Your task to perform on an android device: Open display settings Image 0: 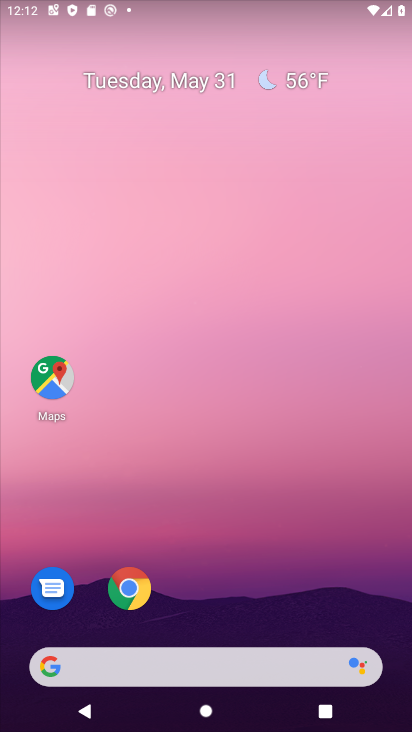
Step 0: drag from (197, 574) to (222, 82)
Your task to perform on an android device: Open display settings Image 1: 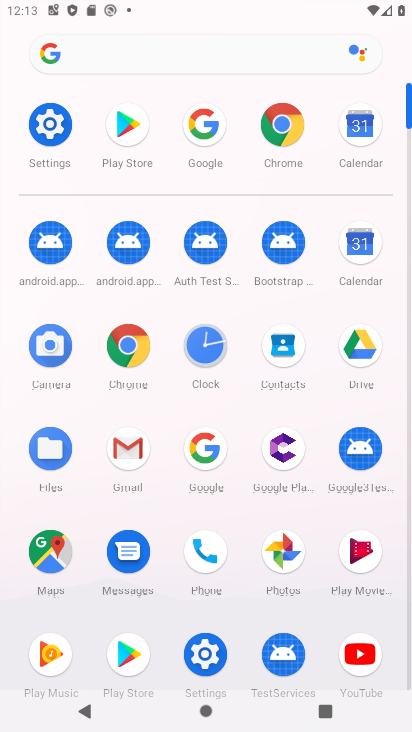
Step 1: click (200, 661)
Your task to perform on an android device: Open display settings Image 2: 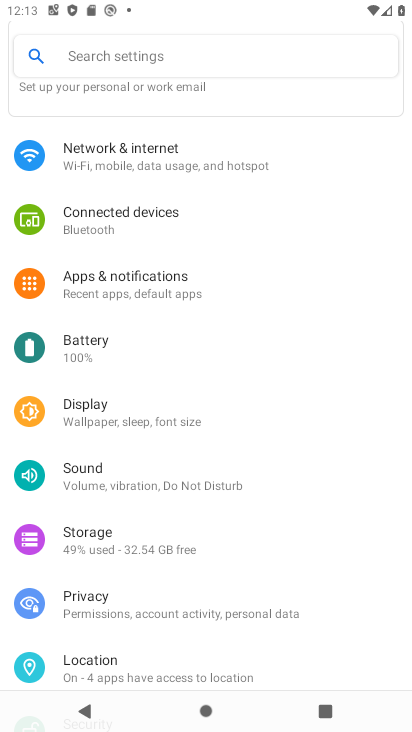
Step 2: click (82, 421)
Your task to perform on an android device: Open display settings Image 3: 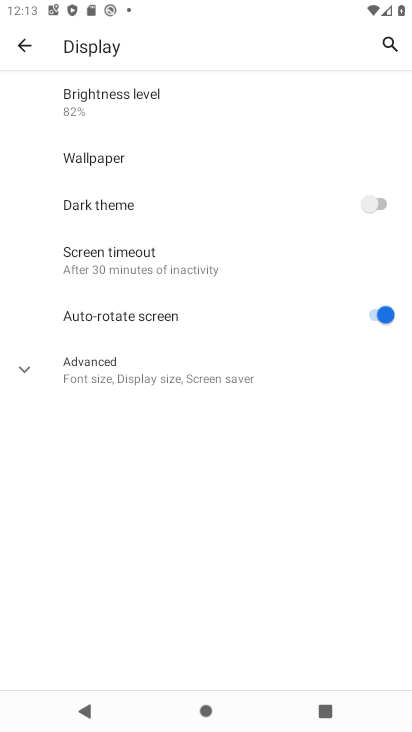
Step 3: task complete